Your task to perform on an android device: Open the calendar app, open the side menu, and click the "Day" option Image 0: 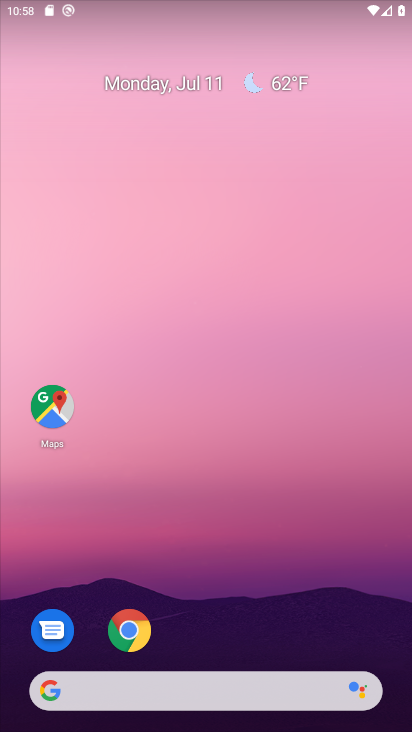
Step 0: drag from (317, 635) to (187, 86)
Your task to perform on an android device: Open the calendar app, open the side menu, and click the "Day" option Image 1: 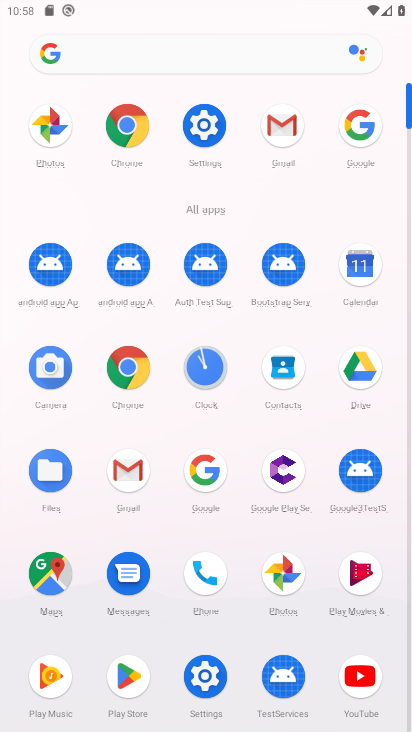
Step 1: click (357, 265)
Your task to perform on an android device: Open the calendar app, open the side menu, and click the "Day" option Image 2: 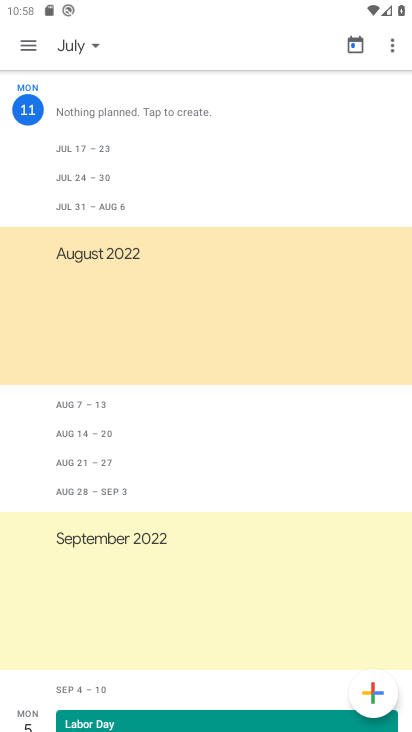
Step 2: click (19, 45)
Your task to perform on an android device: Open the calendar app, open the side menu, and click the "Day" option Image 3: 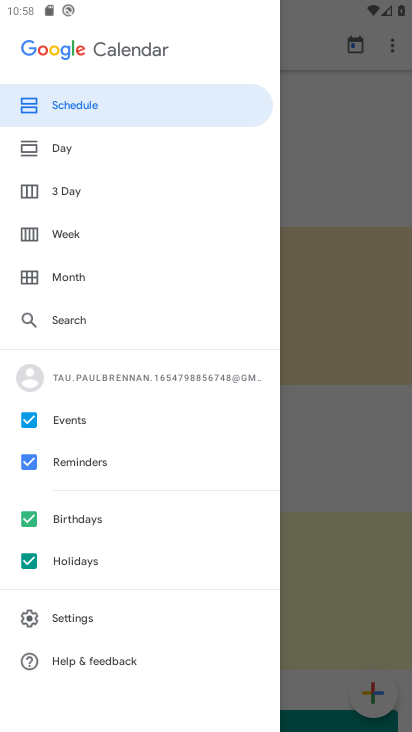
Step 3: click (51, 143)
Your task to perform on an android device: Open the calendar app, open the side menu, and click the "Day" option Image 4: 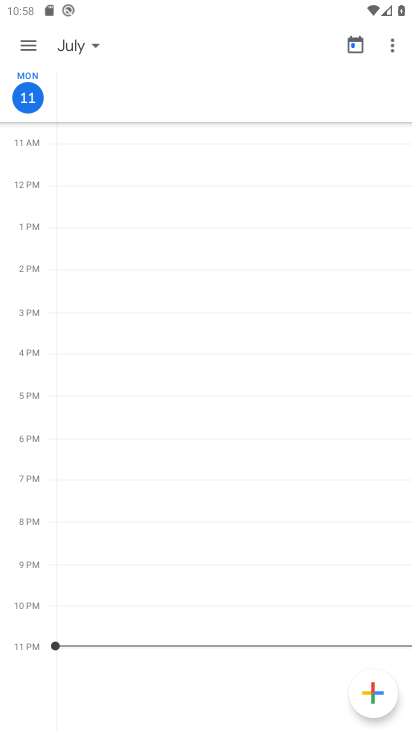
Step 4: task complete